Your task to perform on an android device: open app "Speedtest by Ookla" (install if not already installed) Image 0: 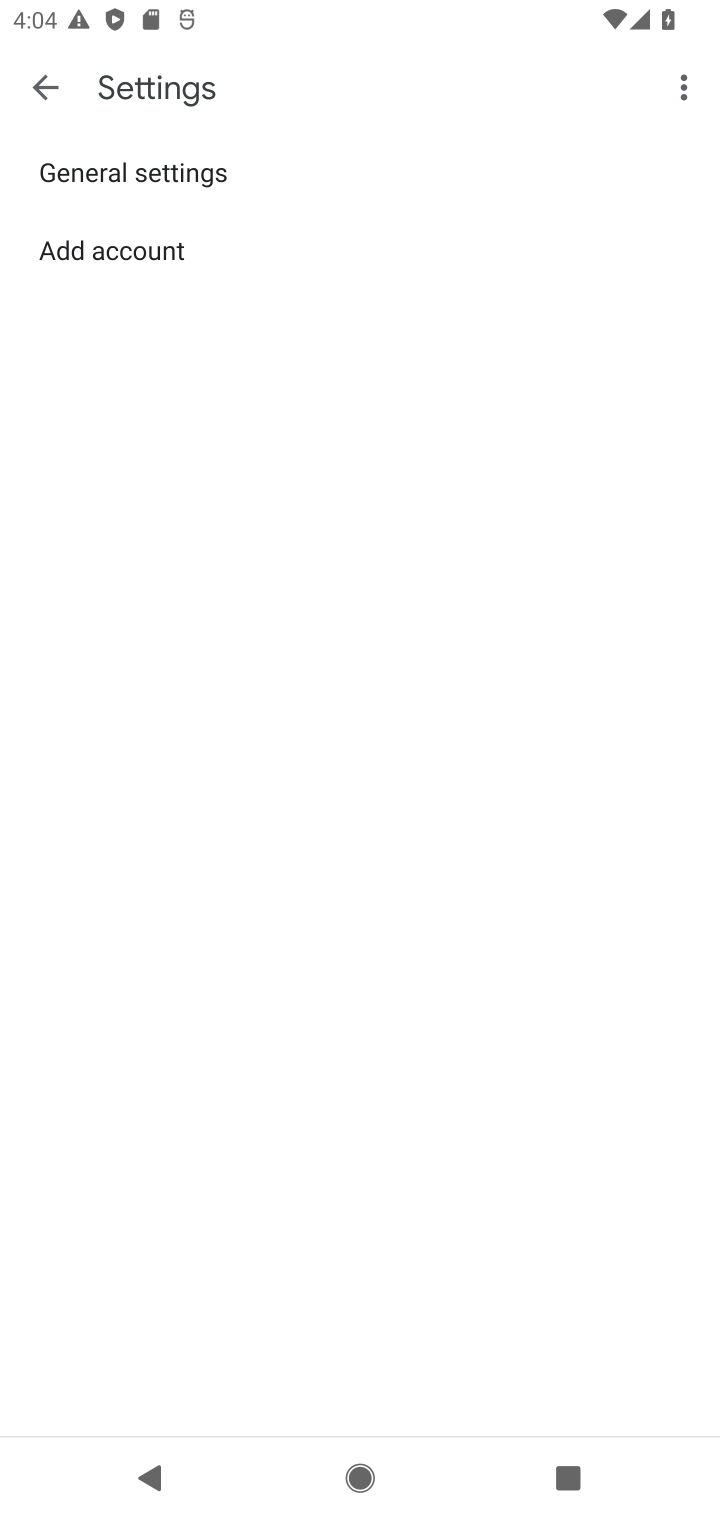
Step 0: press home button
Your task to perform on an android device: open app "Speedtest by Ookla" (install if not already installed) Image 1: 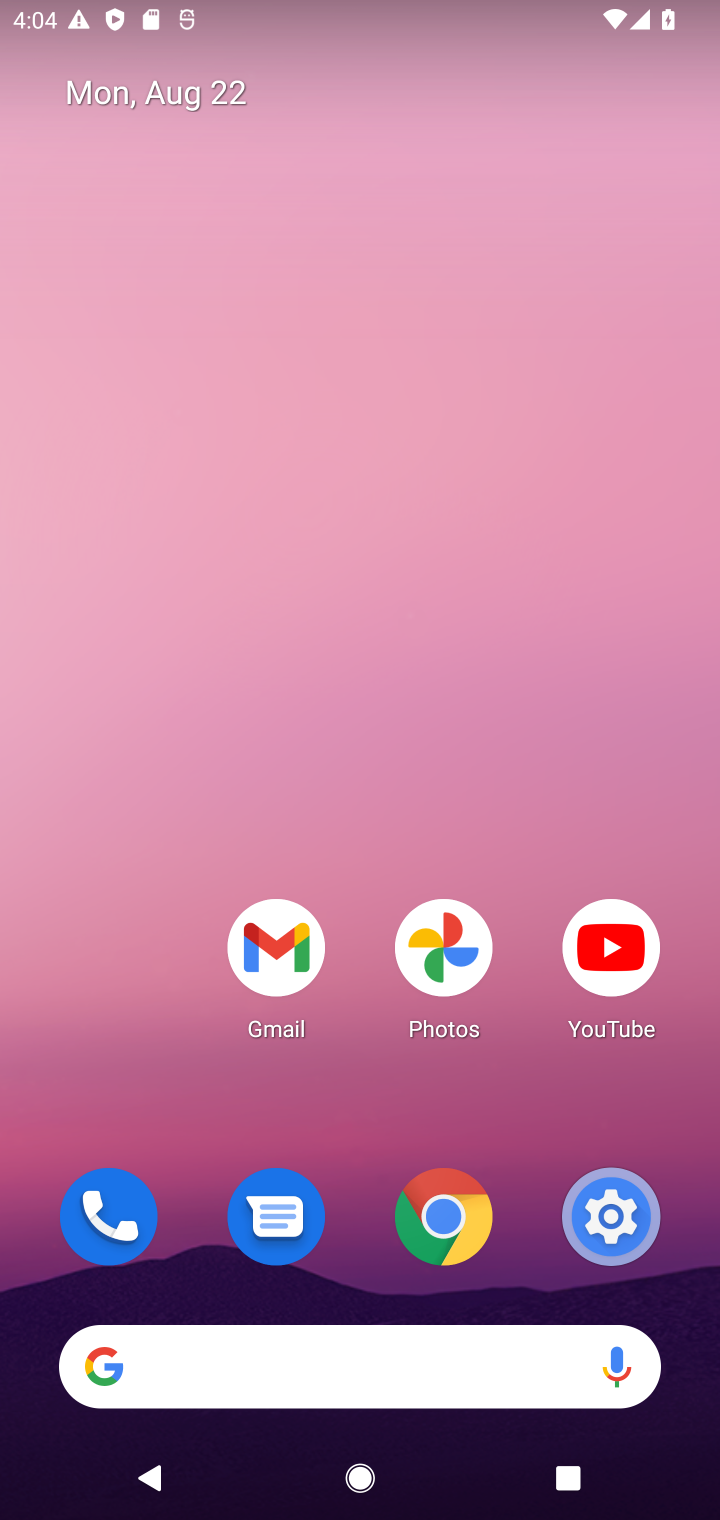
Step 1: drag from (95, 881) to (138, 230)
Your task to perform on an android device: open app "Speedtest by Ookla" (install if not already installed) Image 2: 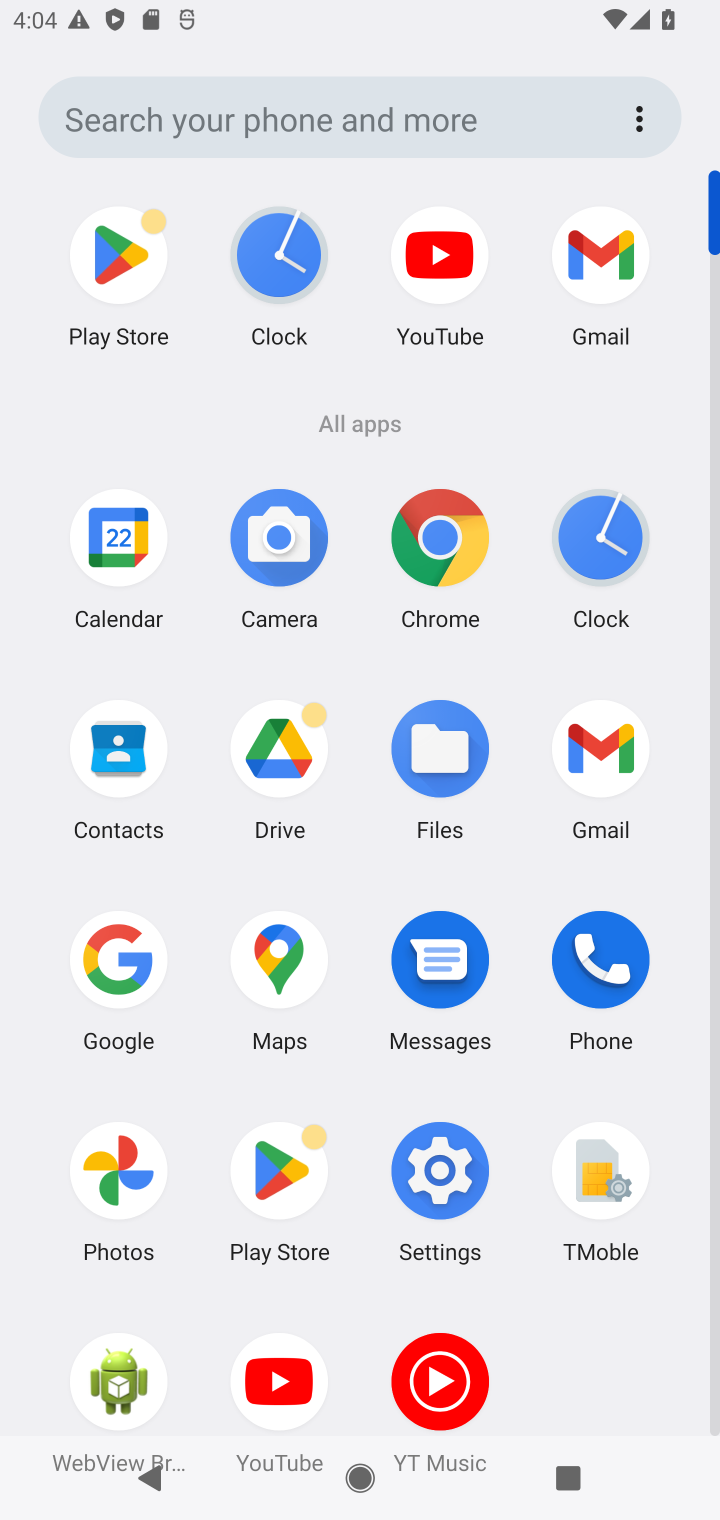
Step 2: click (284, 1176)
Your task to perform on an android device: open app "Speedtest by Ookla" (install if not already installed) Image 3: 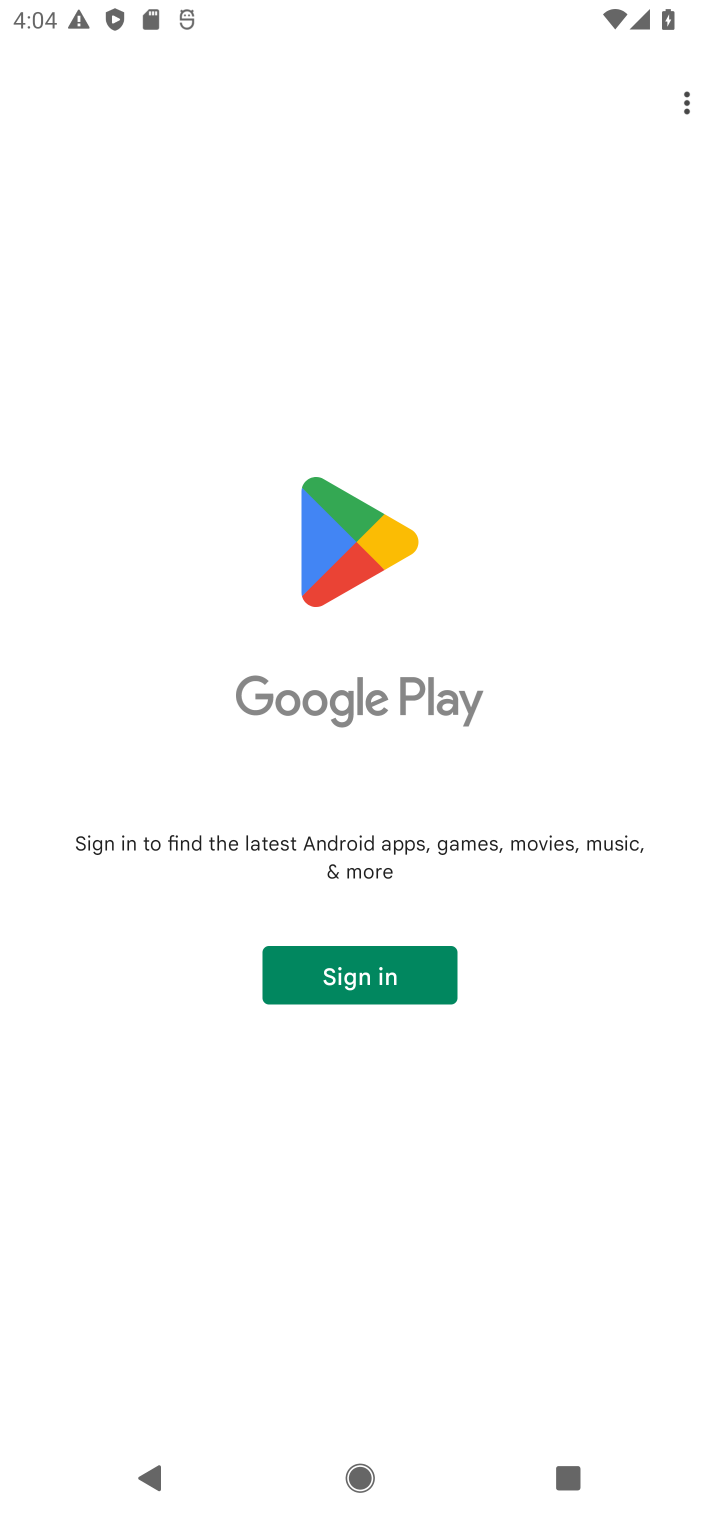
Step 3: task complete